Your task to perform on an android device: Clear all items from cart on ebay. Search for "alienware area 51" on ebay, select the first entry, add it to the cart, then select checkout. Image 0: 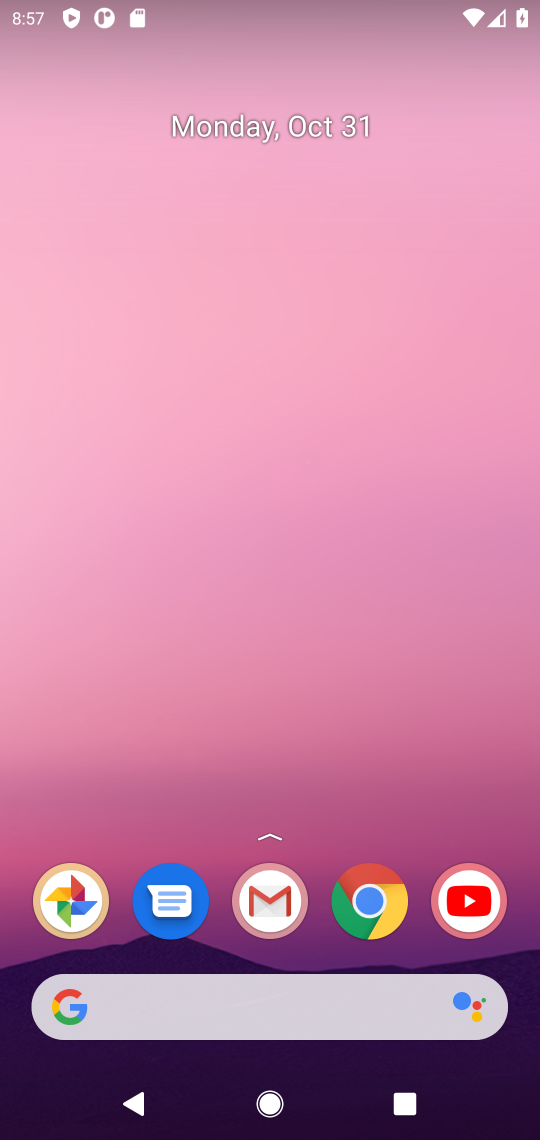
Step 0: drag from (291, 981) to (280, 101)
Your task to perform on an android device: Clear all items from cart on ebay. Search for "alienware area 51" on ebay, select the first entry, add it to the cart, then select checkout. Image 1: 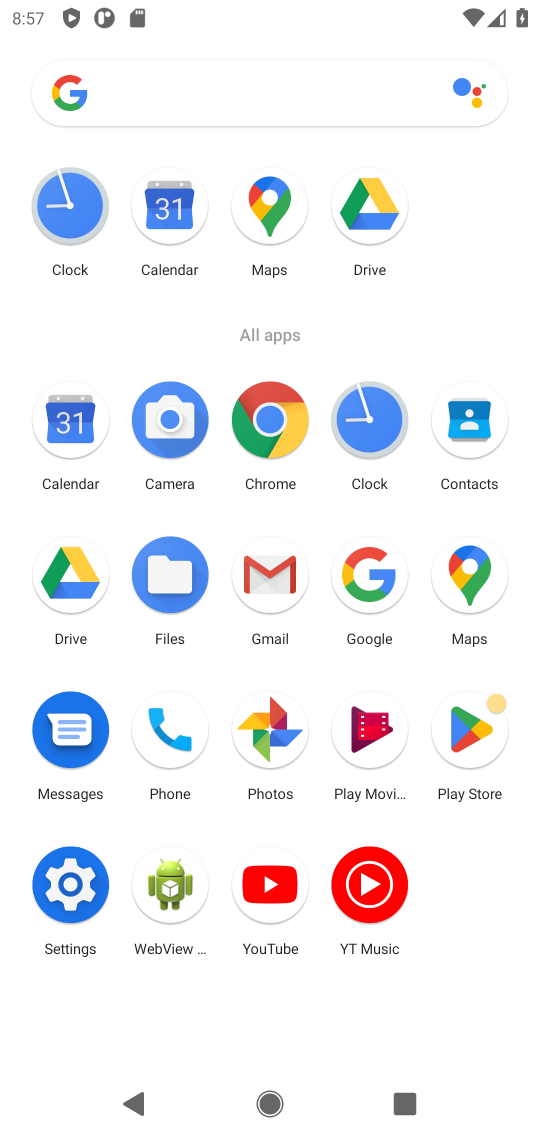
Step 1: click (346, 568)
Your task to perform on an android device: Clear all items from cart on ebay. Search for "alienware area 51" on ebay, select the first entry, add it to the cart, then select checkout. Image 2: 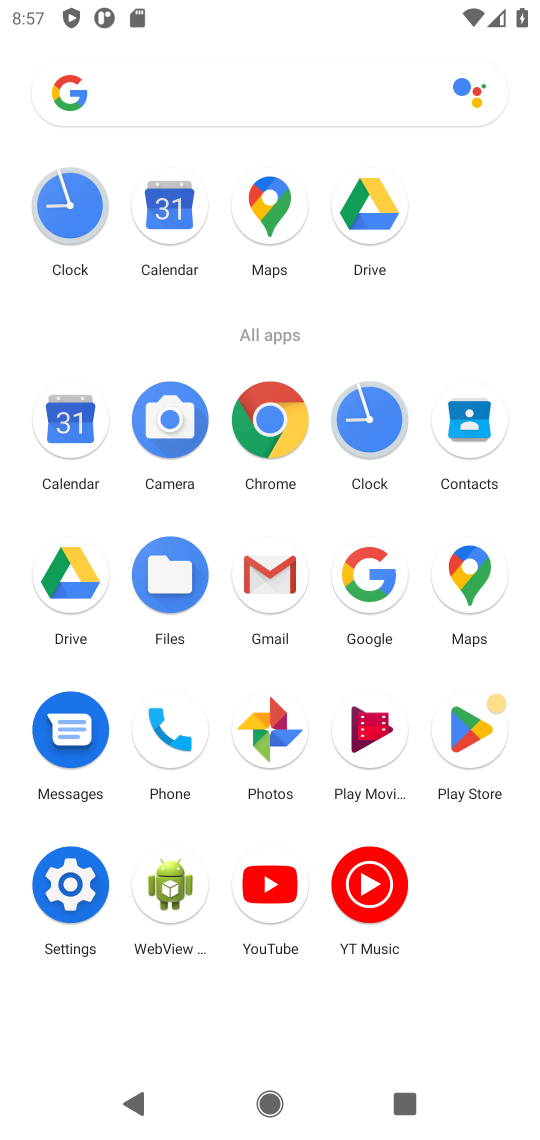
Step 2: click (371, 570)
Your task to perform on an android device: Clear all items from cart on ebay. Search for "alienware area 51" on ebay, select the first entry, add it to the cart, then select checkout. Image 3: 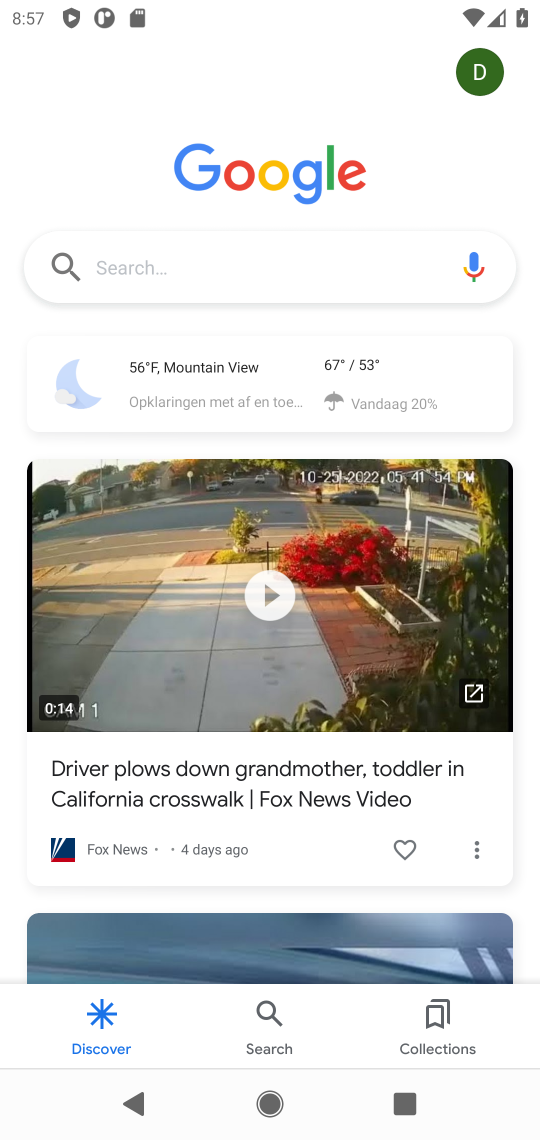
Step 3: click (244, 261)
Your task to perform on an android device: Clear all items from cart on ebay. Search for "alienware area 51" on ebay, select the first entry, add it to the cart, then select checkout. Image 4: 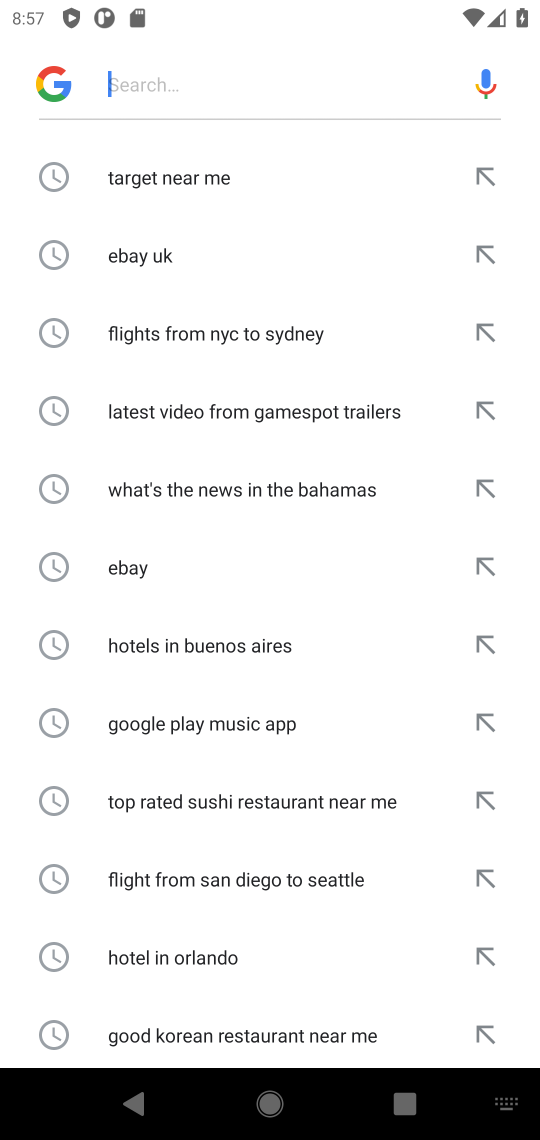
Step 4: type "ebay "
Your task to perform on an android device: Clear all items from cart on ebay. Search for "alienware area 51" on ebay, select the first entry, add it to the cart, then select checkout. Image 5: 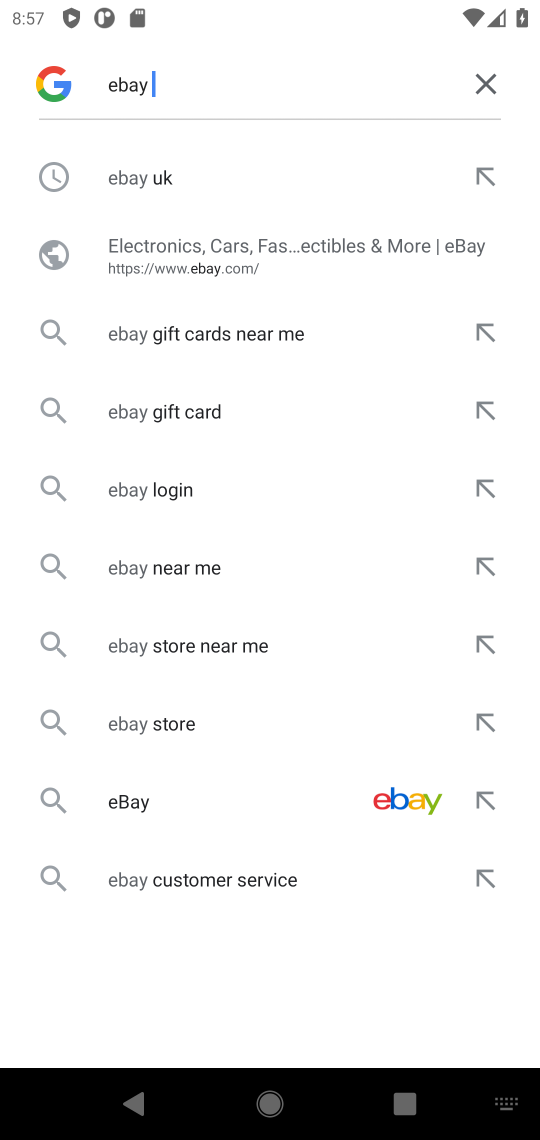
Step 5: click (152, 169)
Your task to perform on an android device: Clear all items from cart on ebay. Search for "alienware area 51" on ebay, select the first entry, add it to the cart, then select checkout. Image 6: 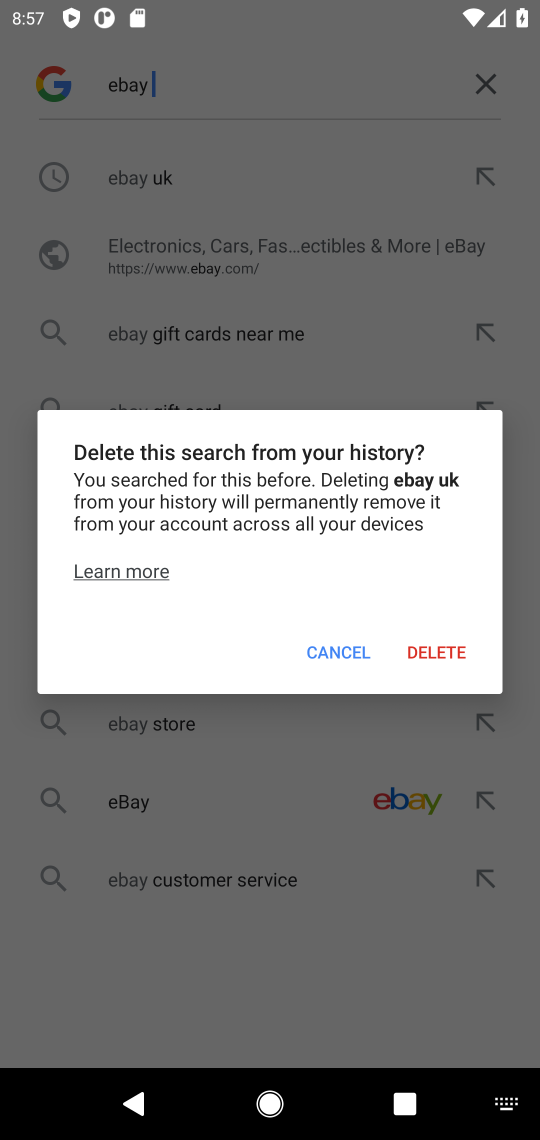
Step 6: click (331, 645)
Your task to perform on an android device: Clear all items from cart on ebay. Search for "alienware area 51" on ebay, select the first entry, add it to the cart, then select checkout. Image 7: 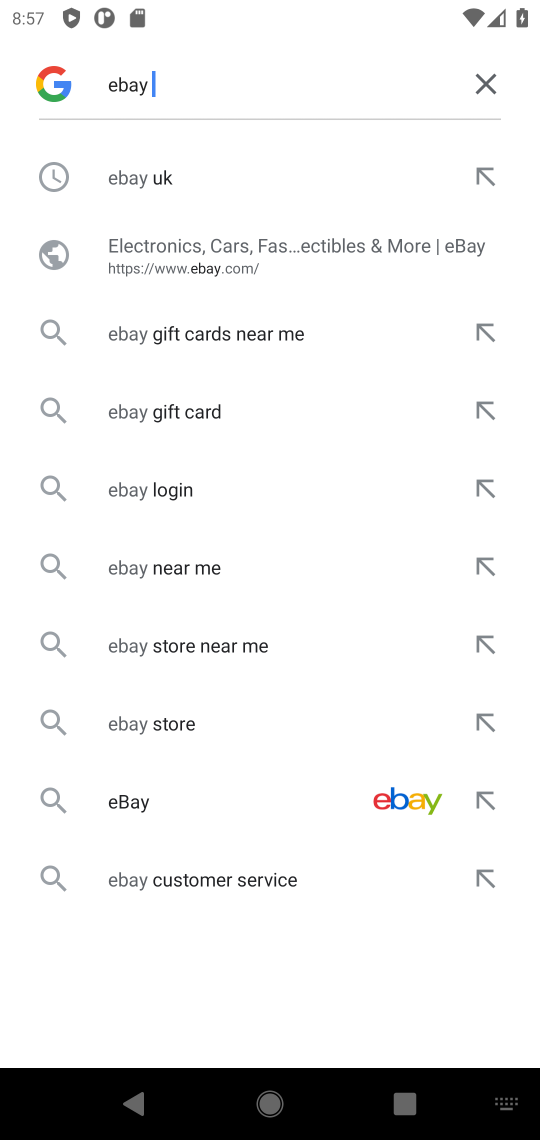
Step 7: click (121, 551)
Your task to perform on an android device: Clear all items from cart on ebay. Search for "alienware area 51" on ebay, select the first entry, add it to the cart, then select checkout. Image 8: 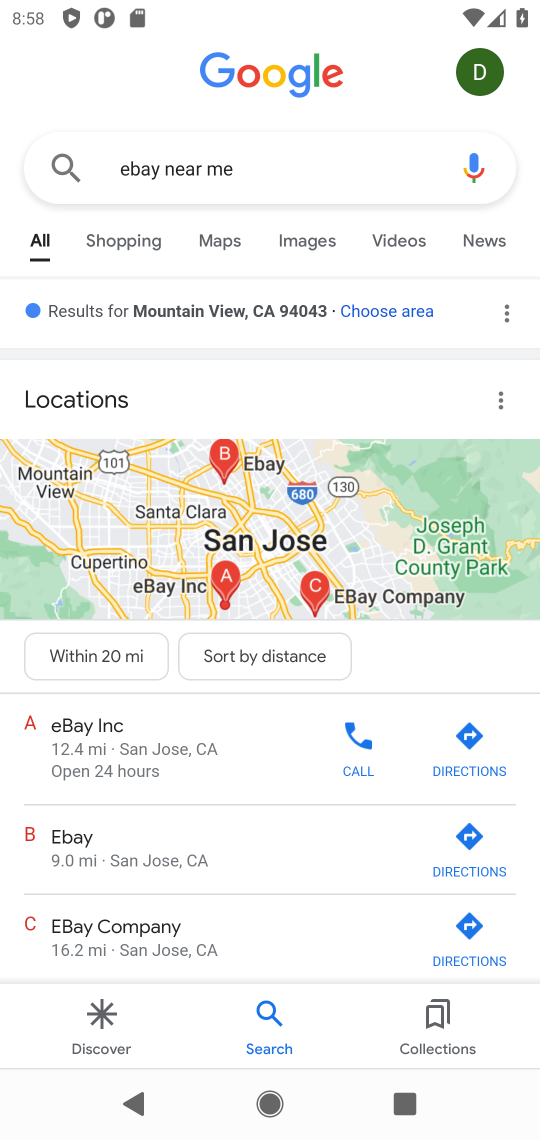
Step 8: drag from (173, 878) to (244, 141)
Your task to perform on an android device: Clear all items from cart on ebay. Search for "alienware area 51" on ebay, select the first entry, add it to the cart, then select checkout. Image 9: 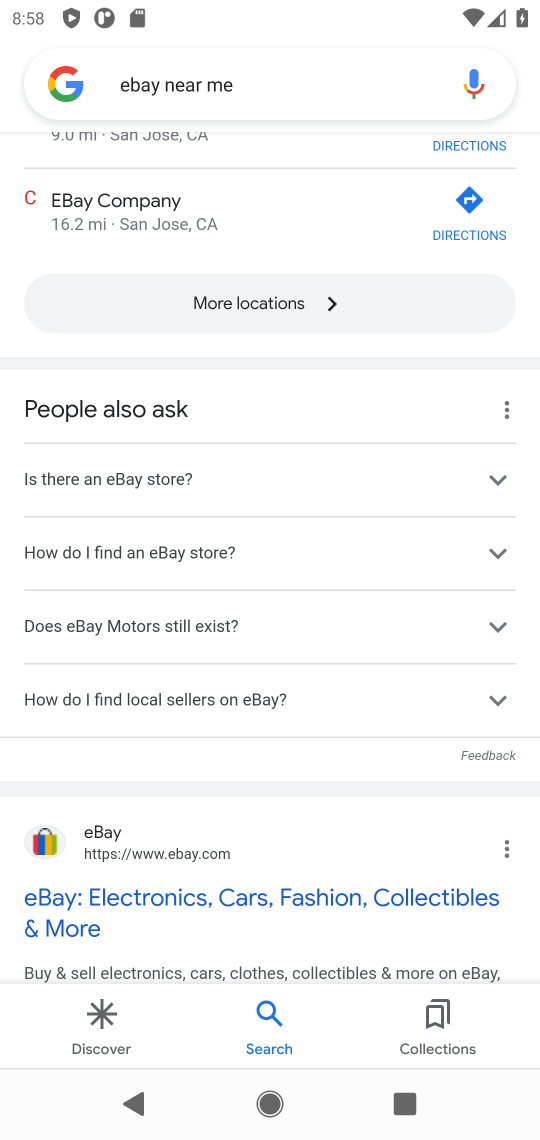
Step 9: drag from (108, 854) to (194, 117)
Your task to perform on an android device: Clear all items from cart on ebay. Search for "alienware area 51" on ebay, select the first entry, add it to the cart, then select checkout. Image 10: 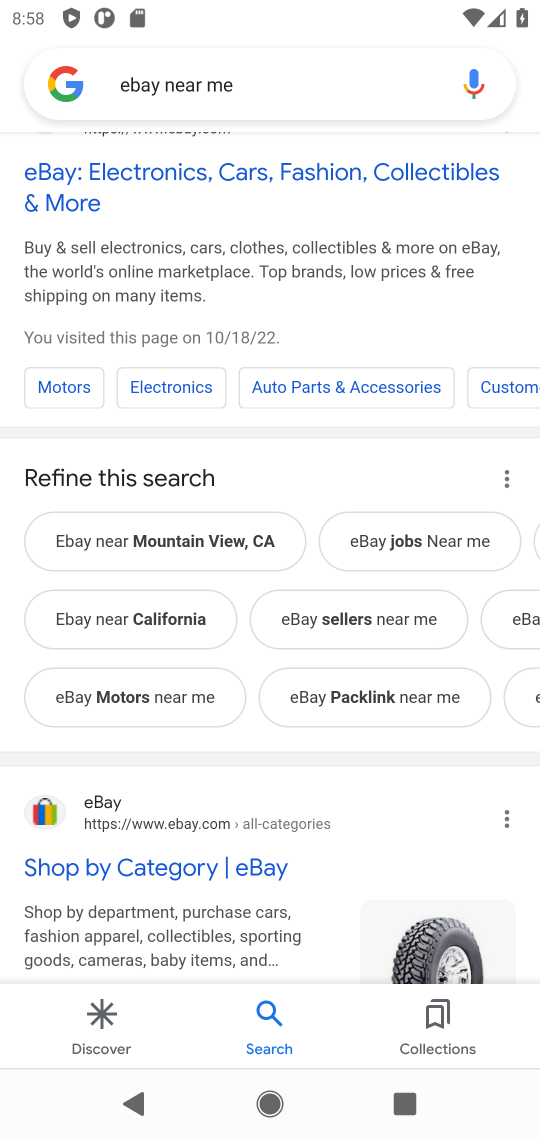
Step 10: click (45, 808)
Your task to perform on an android device: Clear all items from cart on ebay. Search for "alienware area 51" on ebay, select the first entry, add it to the cart, then select checkout. Image 11: 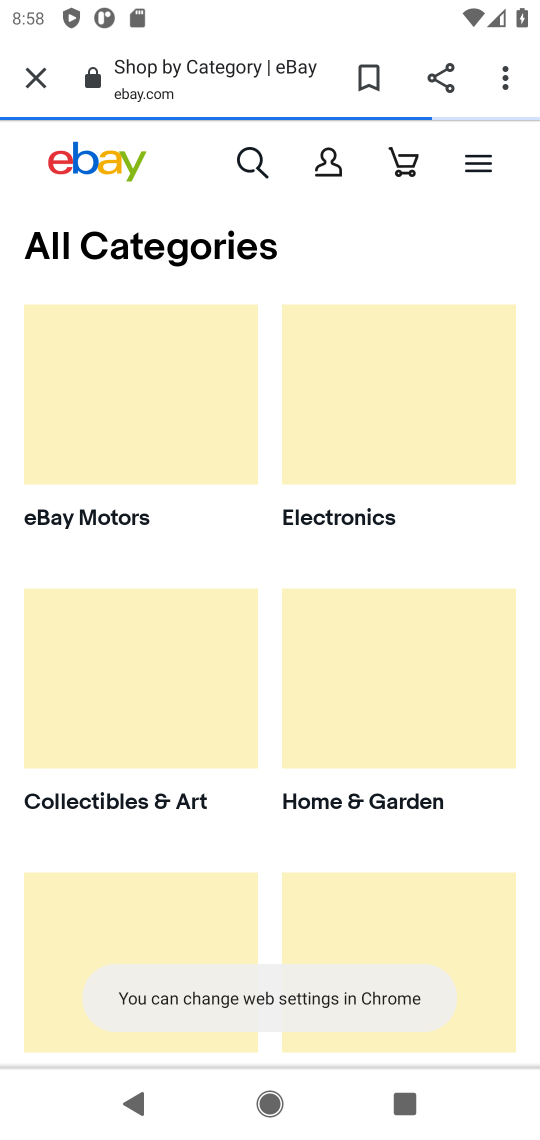
Step 11: click (236, 162)
Your task to perform on an android device: Clear all items from cart on ebay. Search for "alienware area 51" on ebay, select the first entry, add it to the cart, then select checkout. Image 12: 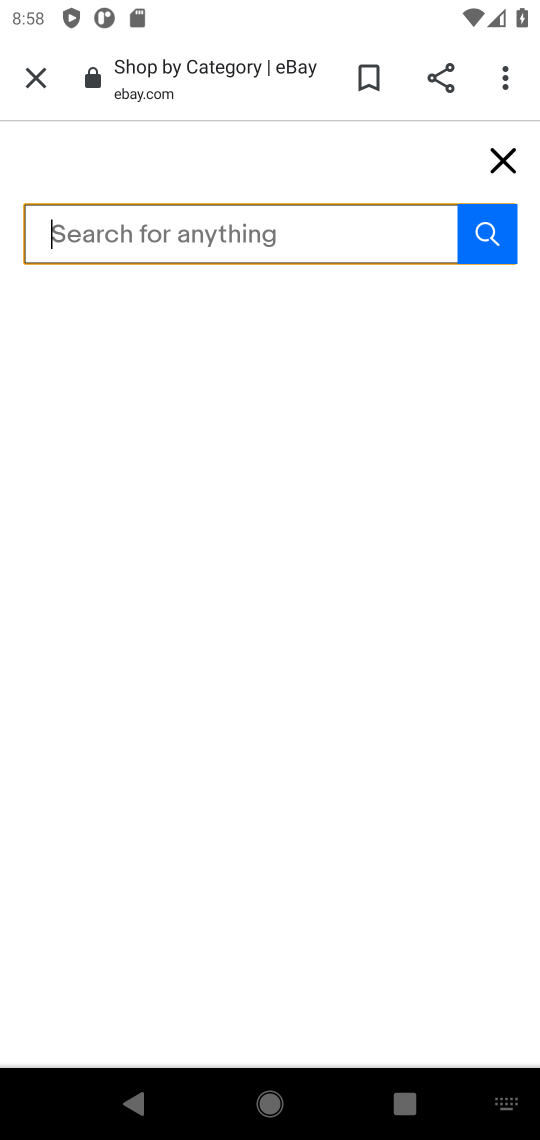
Step 12: click (186, 231)
Your task to perform on an android device: Clear all items from cart on ebay. Search for "alienware area 51" on ebay, select the first entry, add it to the cart, then select checkout. Image 13: 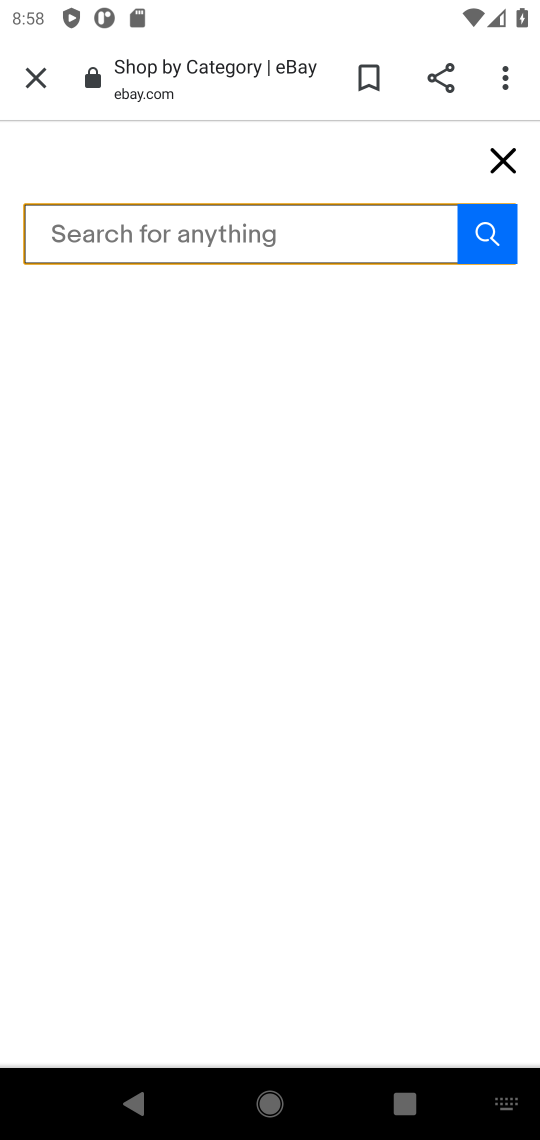
Step 13: type "alienware area 51 "
Your task to perform on an android device: Clear all items from cart on ebay. Search for "alienware area 51" on ebay, select the first entry, add it to the cart, then select checkout. Image 14: 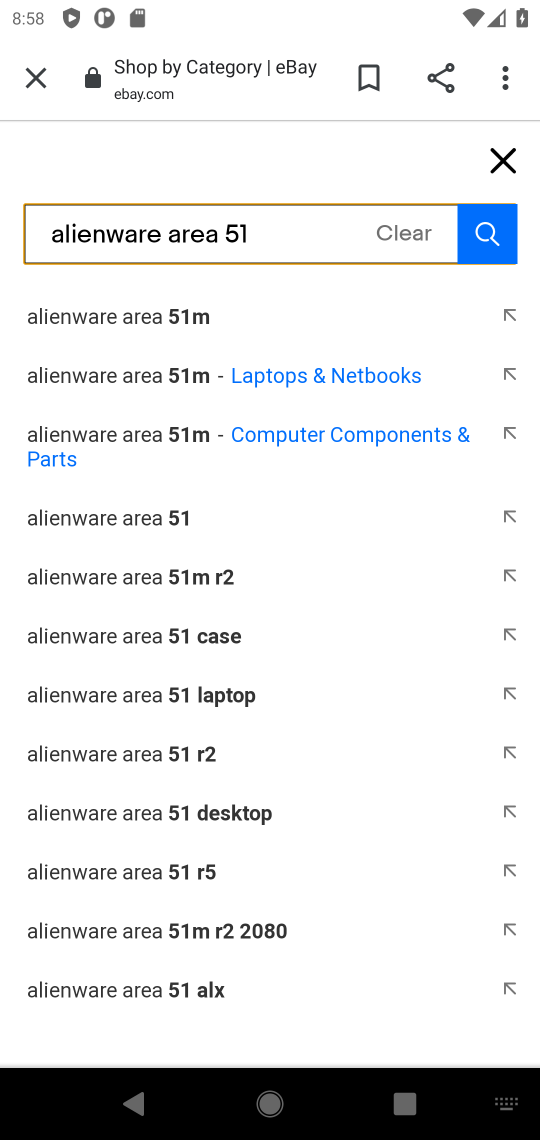
Step 14: click (159, 327)
Your task to perform on an android device: Clear all items from cart on ebay. Search for "alienware area 51" on ebay, select the first entry, add it to the cart, then select checkout. Image 15: 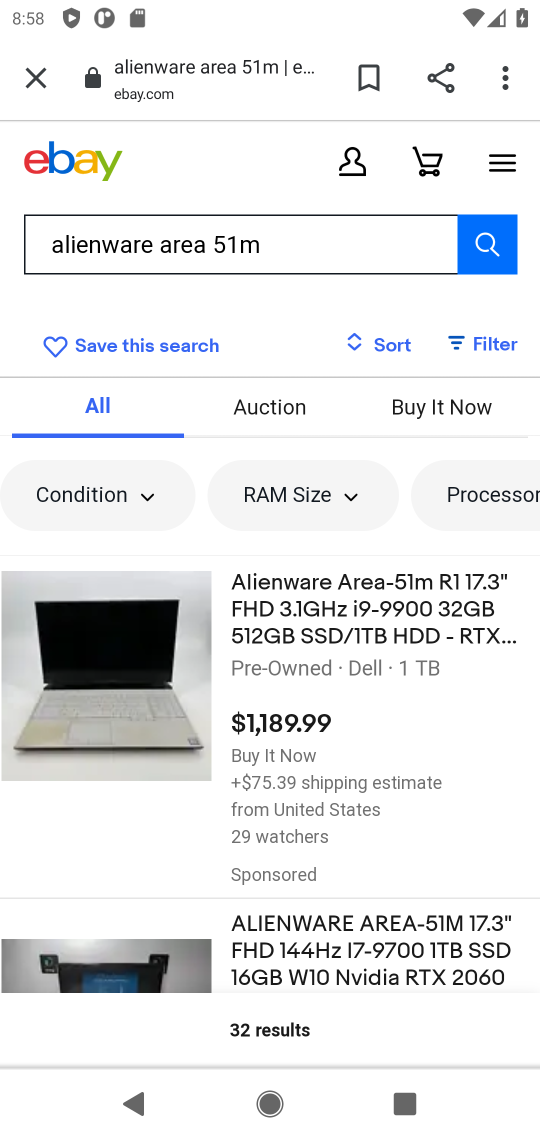
Step 15: click (324, 602)
Your task to perform on an android device: Clear all items from cart on ebay. Search for "alienware area 51" on ebay, select the first entry, add it to the cart, then select checkout. Image 16: 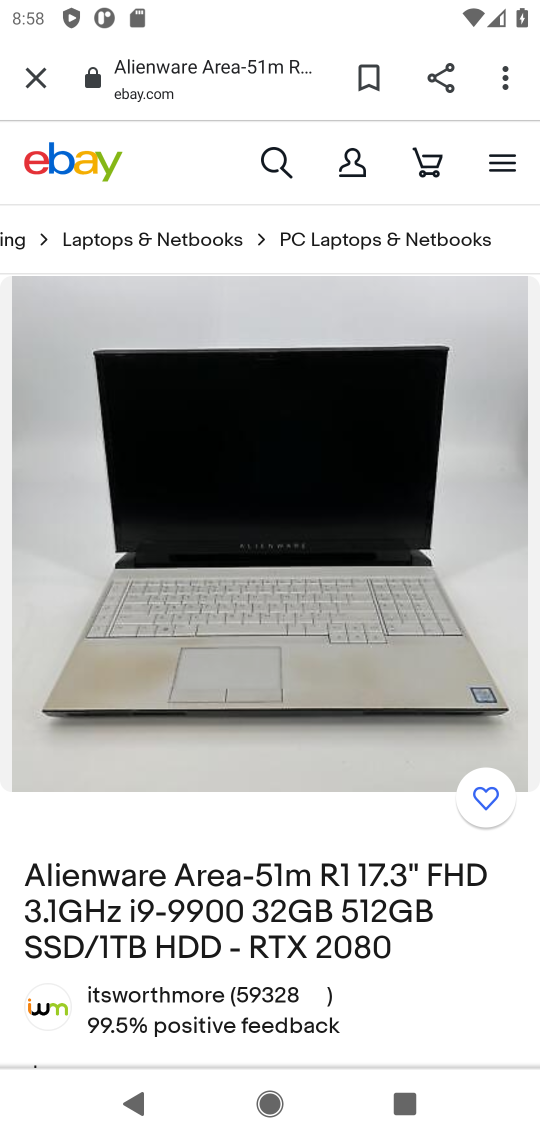
Step 16: drag from (333, 982) to (366, 381)
Your task to perform on an android device: Clear all items from cart on ebay. Search for "alienware area 51" on ebay, select the first entry, add it to the cart, then select checkout. Image 17: 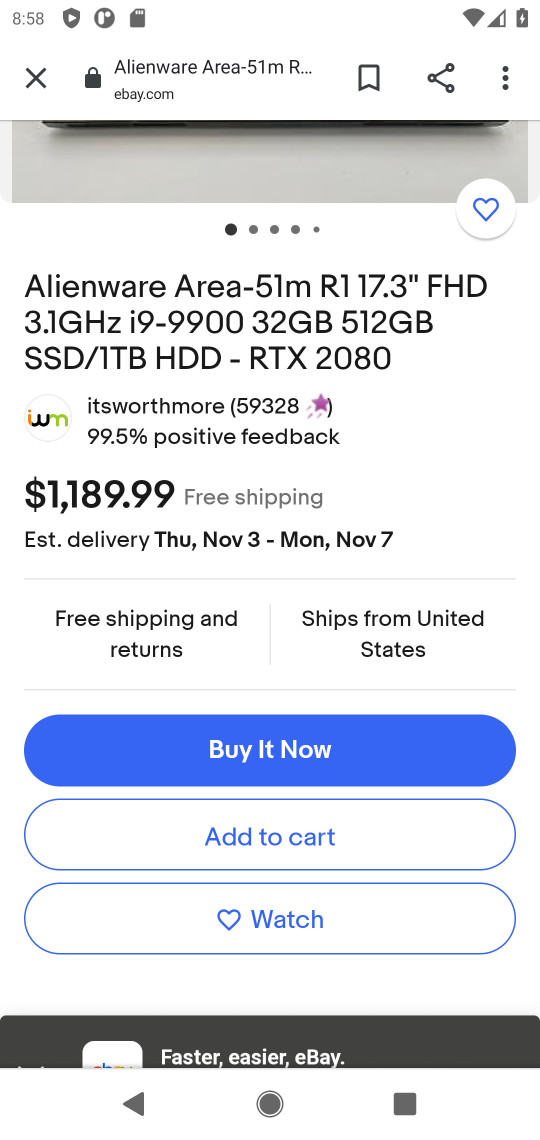
Step 17: click (225, 835)
Your task to perform on an android device: Clear all items from cart on ebay. Search for "alienware area 51" on ebay, select the first entry, add it to the cart, then select checkout. Image 18: 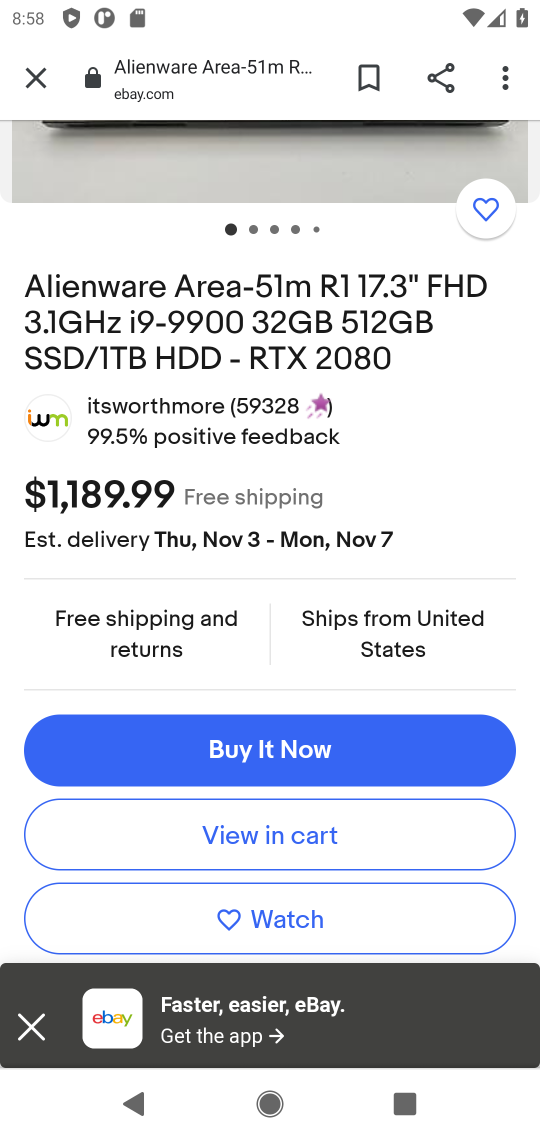
Step 18: task complete